Your task to perform on an android device: Go to Wikipedia Image 0: 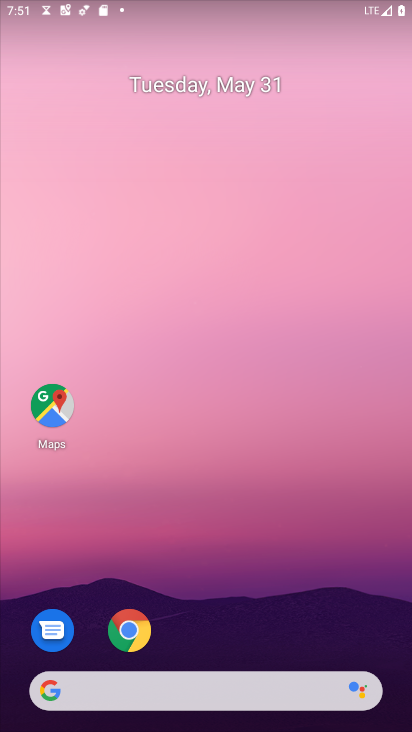
Step 0: click (128, 629)
Your task to perform on an android device: Go to Wikipedia Image 1: 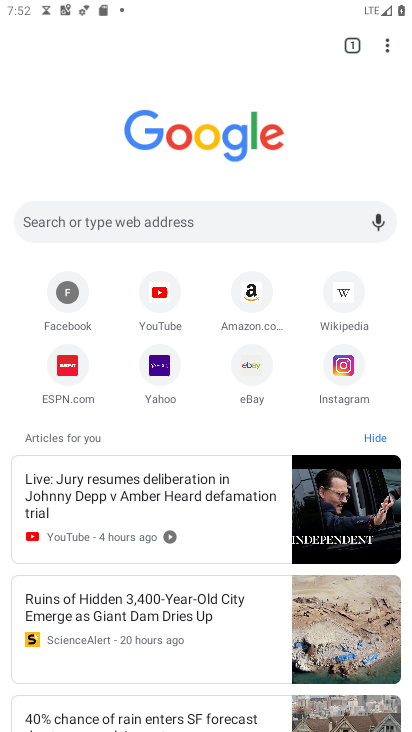
Step 1: click (344, 292)
Your task to perform on an android device: Go to Wikipedia Image 2: 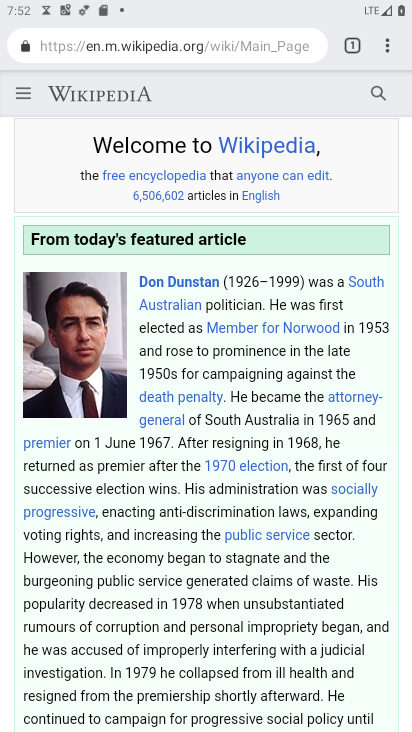
Step 2: task complete